Your task to perform on an android device: move an email to a new category in the gmail app Image 0: 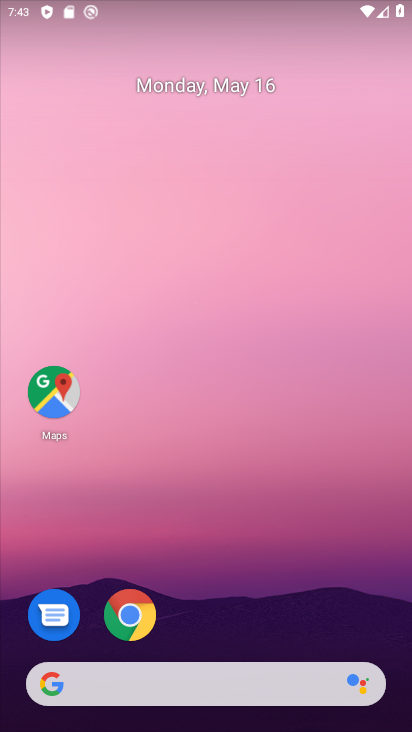
Step 0: drag from (244, 638) to (273, 59)
Your task to perform on an android device: move an email to a new category in the gmail app Image 1: 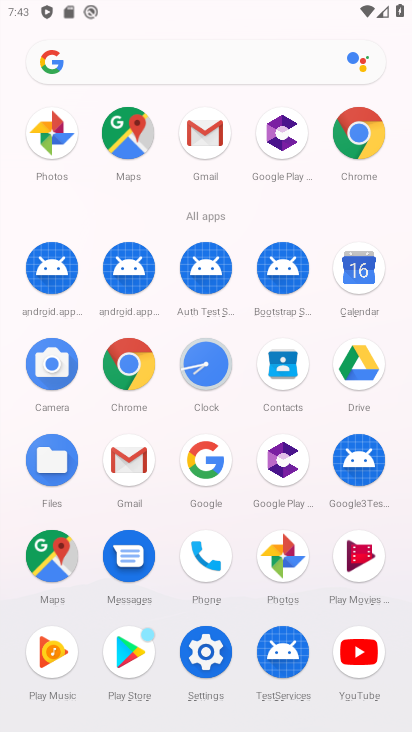
Step 1: click (134, 470)
Your task to perform on an android device: move an email to a new category in the gmail app Image 2: 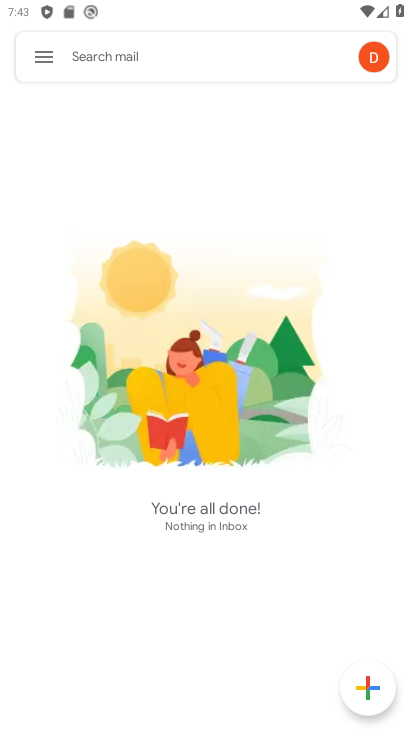
Step 2: click (39, 54)
Your task to perform on an android device: move an email to a new category in the gmail app Image 3: 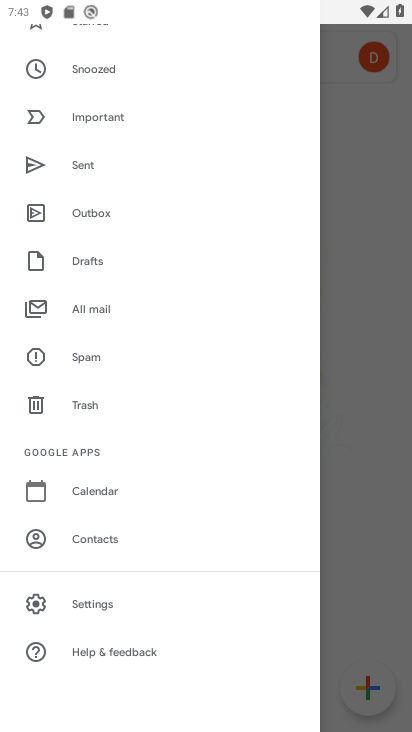
Step 3: click (141, 303)
Your task to perform on an android device: move an email to a new category in the gmail app Image 4: 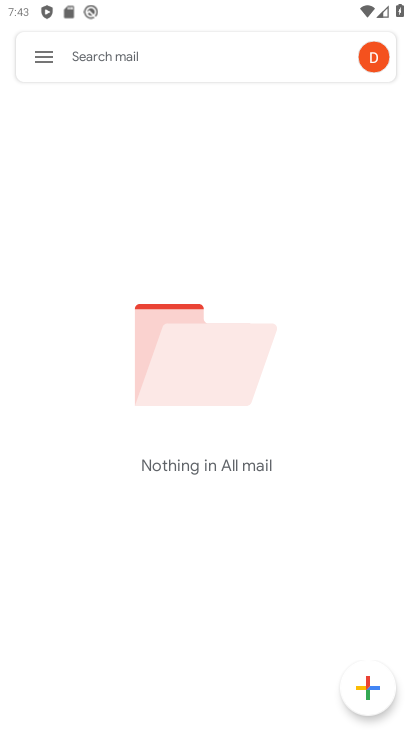
Step 4: task complete